Your task to perform on an android device: Open internet settings Image 0: 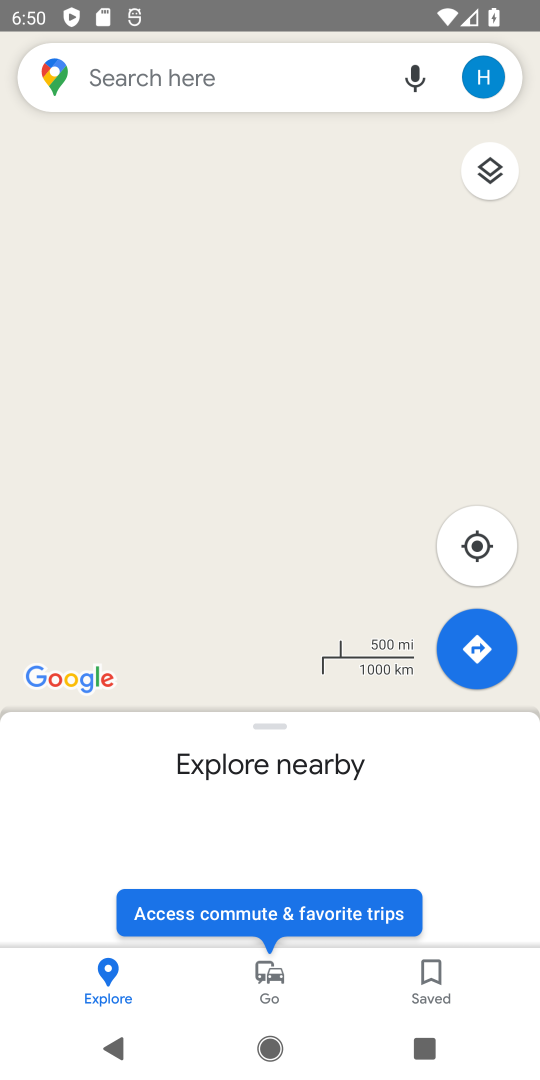
Step 0: press home button
Your task to perform on an android device: Open internet settings Image 1: 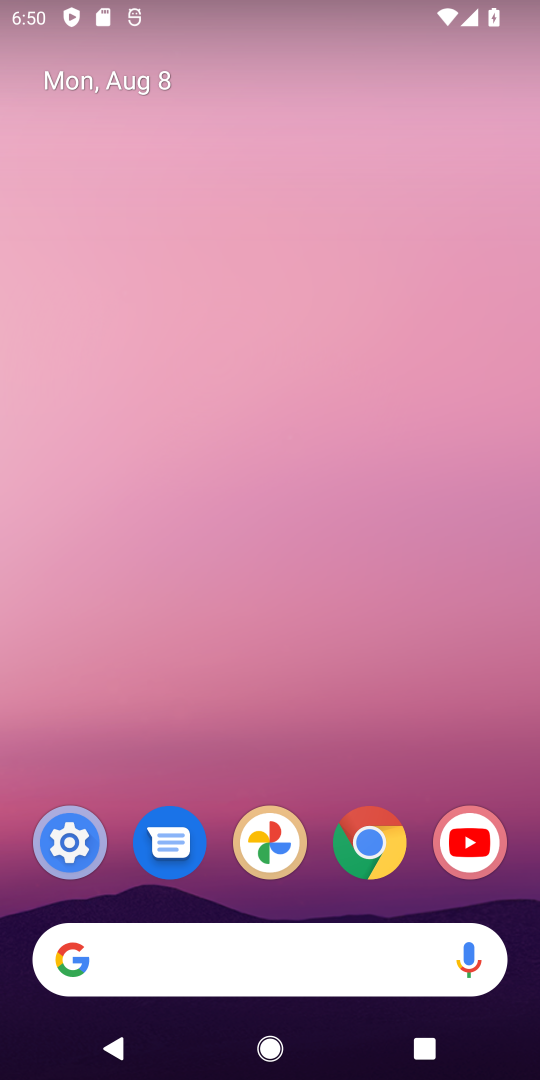
Step 1: drag from (273, 898) to (251, 83)
Your task to perform on an android device: Open internet settings Image 2: 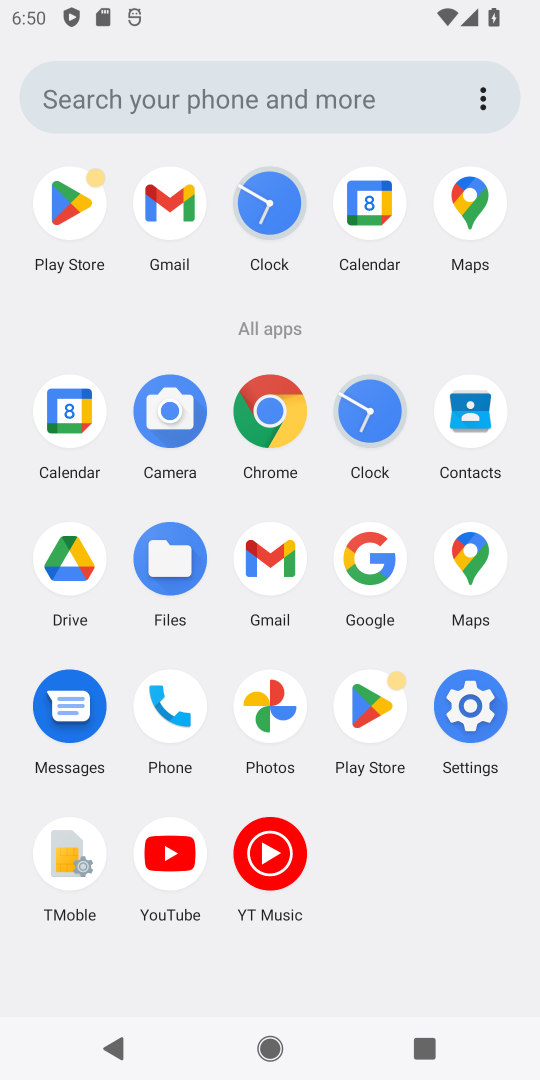
Step 2: click (467, 706)
Your task to perform on an android device: Open internet settings Image 3: 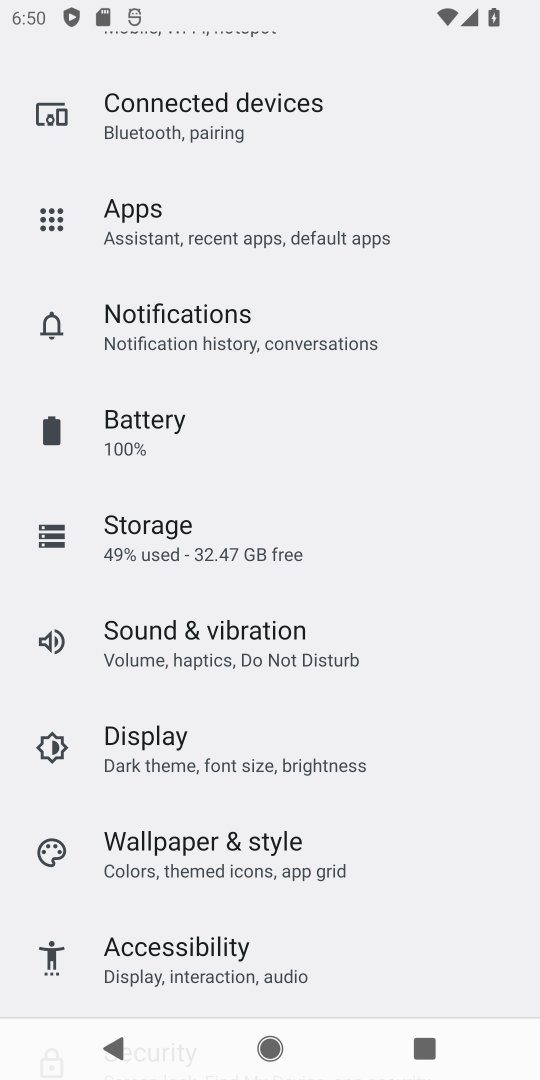
Step 3: drag from (348, 258) to (325, 692)
Your task to perform on an android device: Open internet settings Image 4: 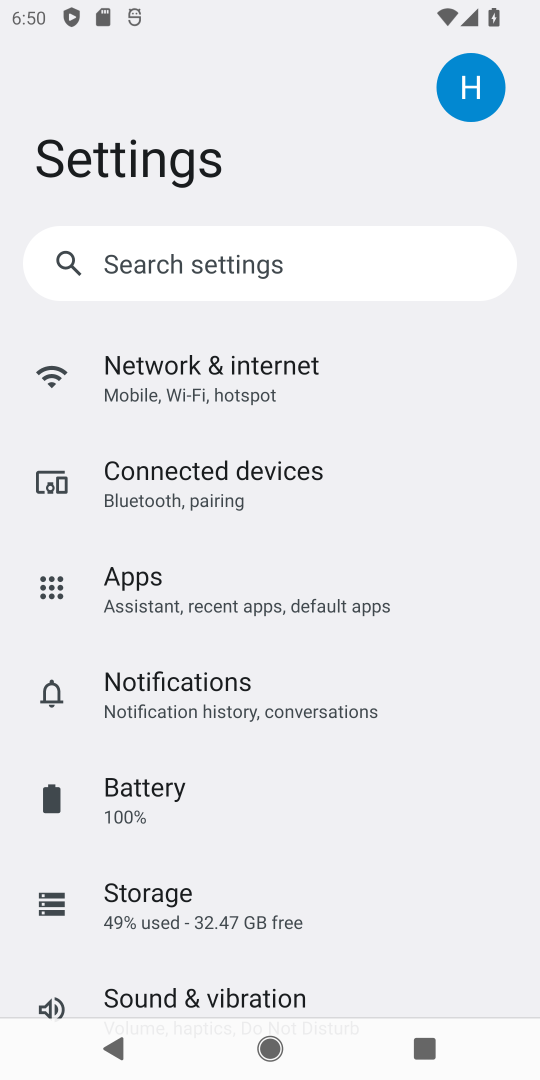
Step 4: click (207, 386)
Your task to perform on an android device: Open internet settings Image 5: 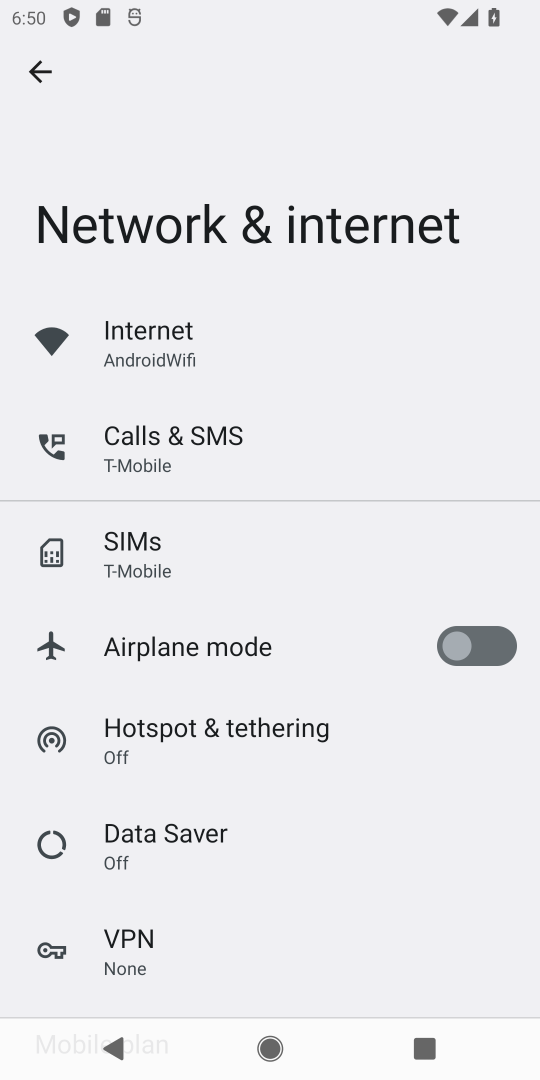
Step 5: click (195, 317)
Your task to perform on an android device: Open internet settings Image 6: 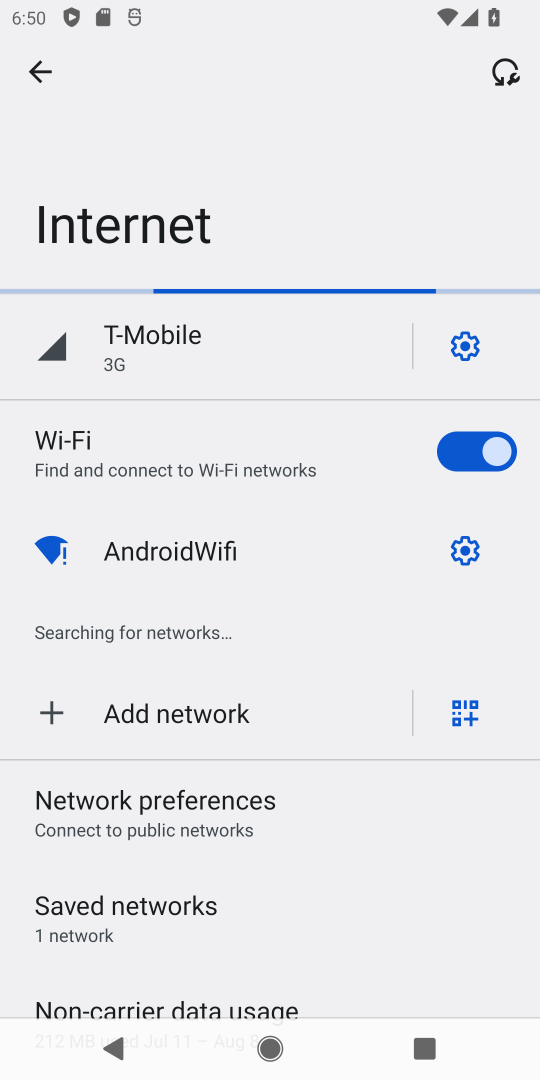
Step 6: task complete